Your task to perform on an android device: Show me the alarms in the clock app Image 0: 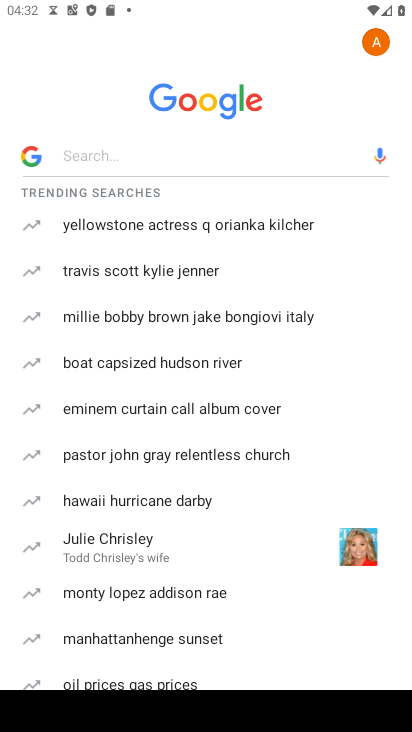
Step 0: press home button
Your task to perform on an android device: Show me the alarms in the clock app Image 1: 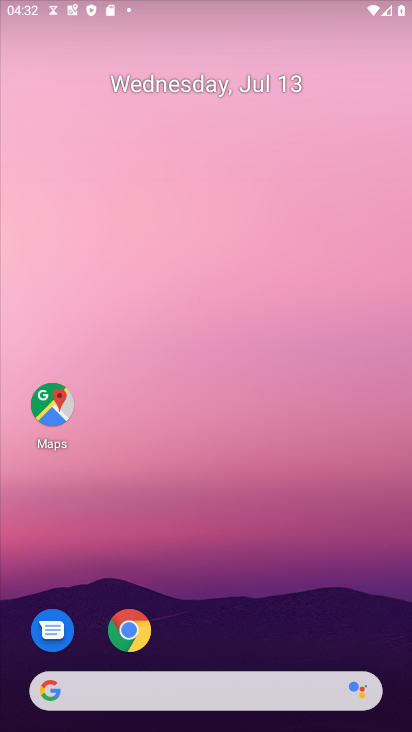
Step 1: drag from (267, 679) to (279, 7)
Your task to perform on an android device: Show me the alarms in the clock app Image 2: 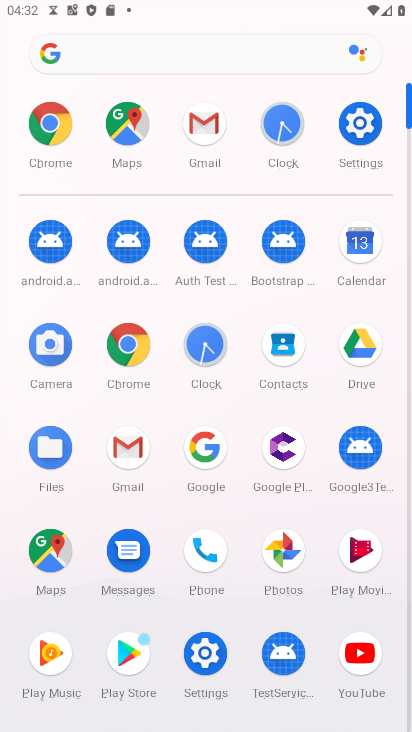
Step 2: click (203, 341)
Your task to perform on an android device: Show me the alarms in the clock app Image 3: 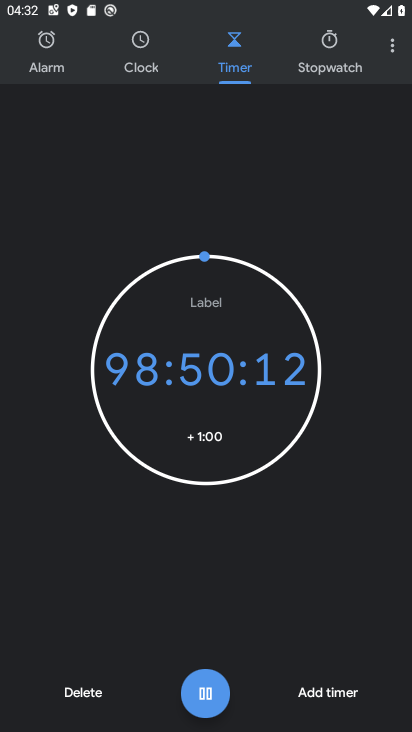
Step 3: click (61, 62)
Your task to perform on an android device: Show me the alarms in the clock app Image 4: 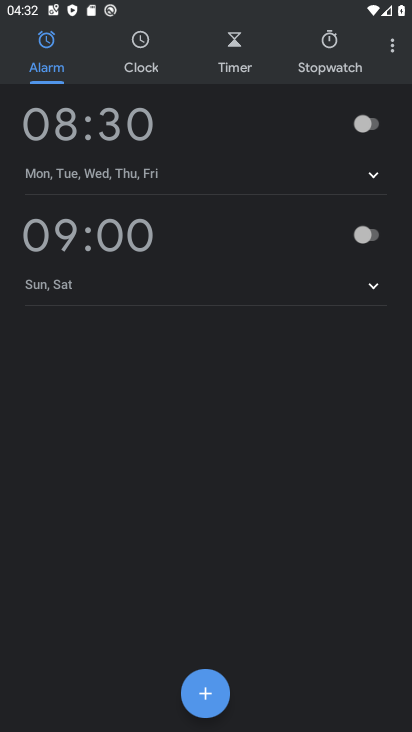
Step 4: task complete